Your task to perform on an android device: find which apps use the phone's location Image 0: 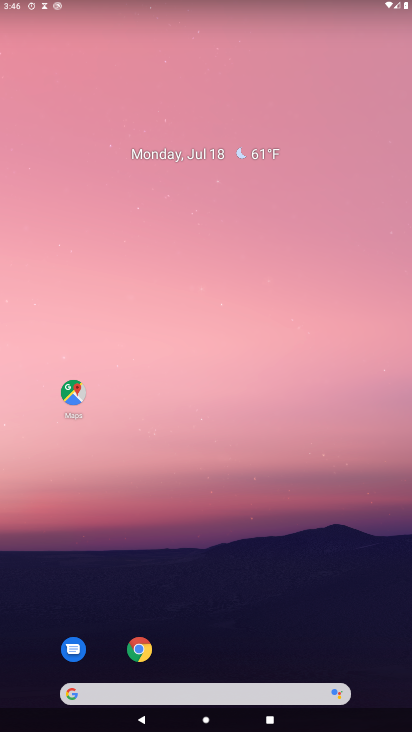
Step 0: drag from (55, 668) to (179, 73)
Your task to perform on an android device: find which apps use the phone's location Image 1: 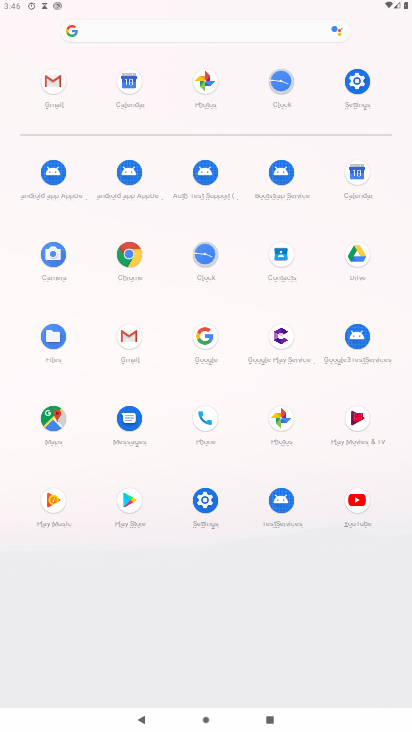
Step 1: click (213, 510)
Your task to perform on an android device: find which apps use the phone's location Image 2: 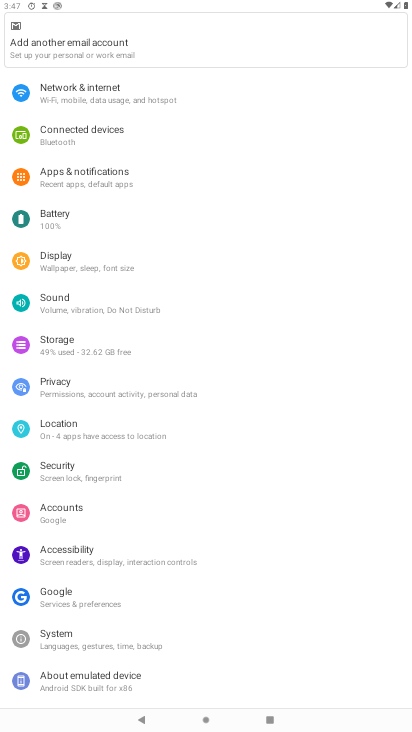
Step 2: click (81, 427)
Your task to perform on an android device: find which apps use the phone's location Image 3: 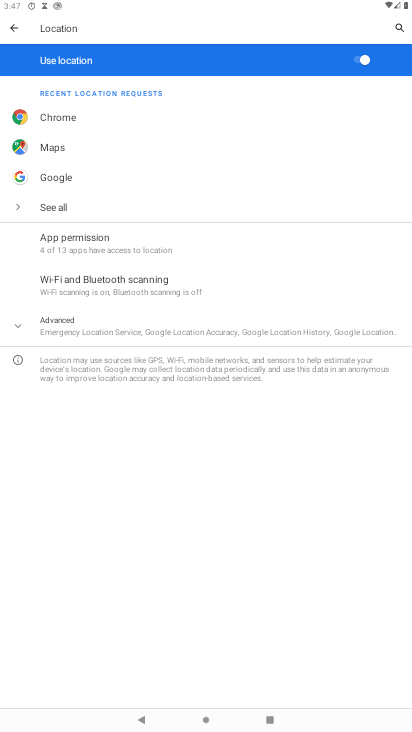
Step 3: click (89, 247)
Your task to perform on an android device: find which apps use the phone's location Image 4: 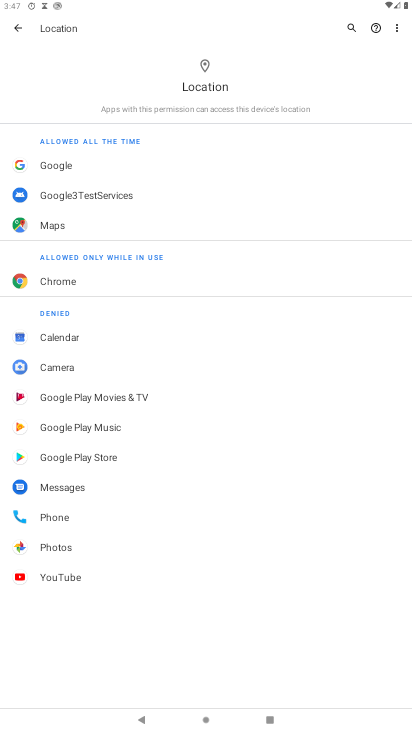
Step 4: task complete